Your task to perform on an android device: What's the weather? Image 0: 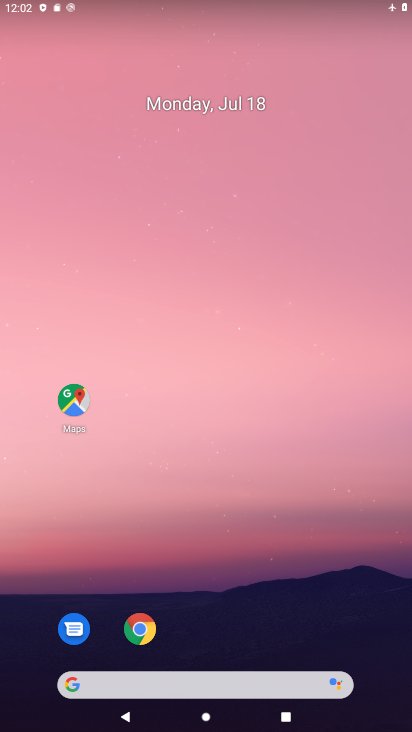
Step 0: press home button
Your task to perform on an android device: What's the weather? Image 1: 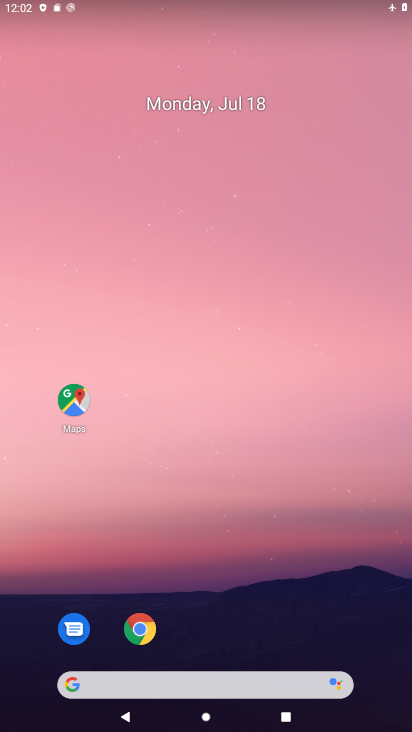
Step 1: click (172, 679)
Your task to perform on an android device: What's the weather? Image 2: 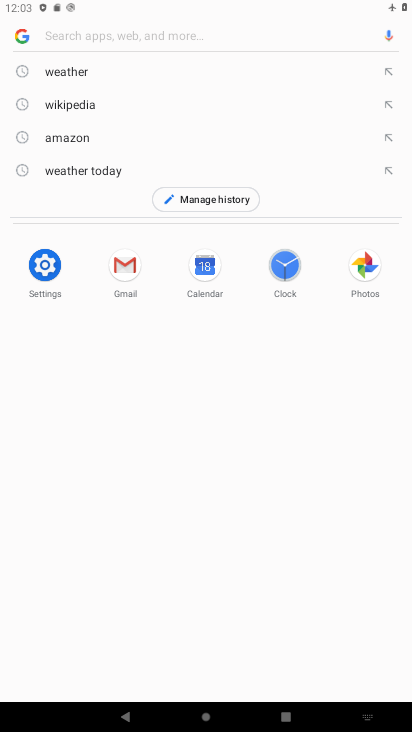
Step 2: click (100, 68)
Your task to perform on an android device: What's the weather? Image 3: 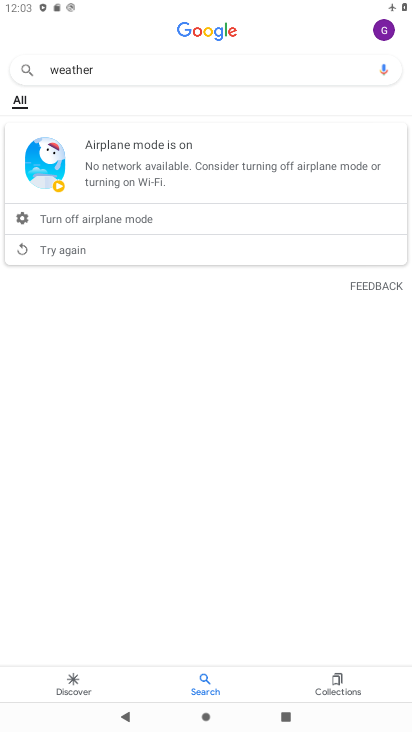
Step 3: task complete